Your task to perform on an android device: move a message to another label in the gmail app Image 0: 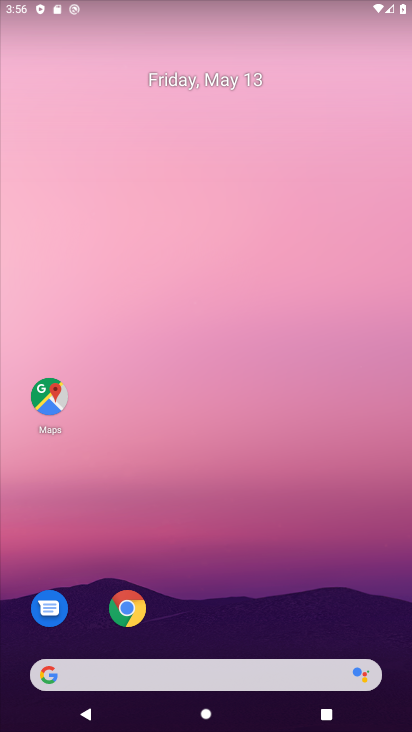
Step 0: drag from (235, 635) to (275, 43)
Your task to perform on an android device: move a message to another label in the gmail app Image 1: 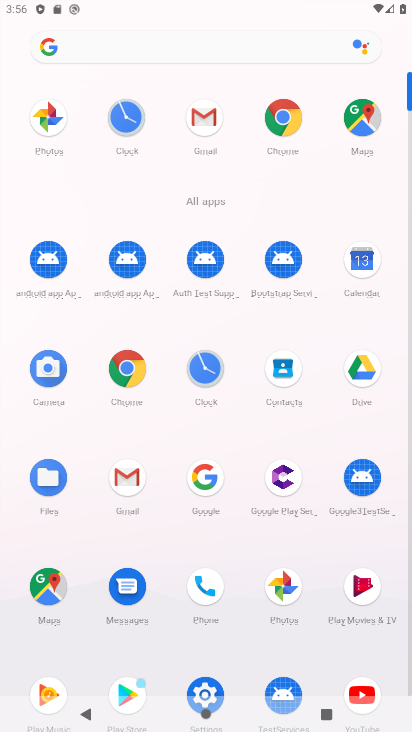
Step 1: click (124, 495)
Your task to perform on an android device: move a message to another label in the gmail app Image 2: 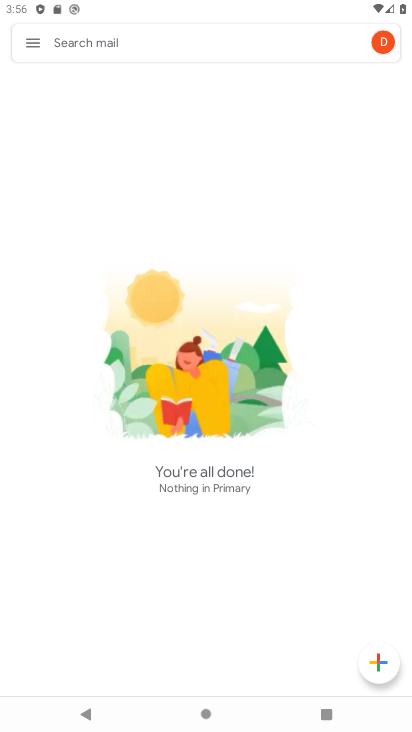
Step 2: task complete